Your task to perform on an android device: Open battery settings Image 0: 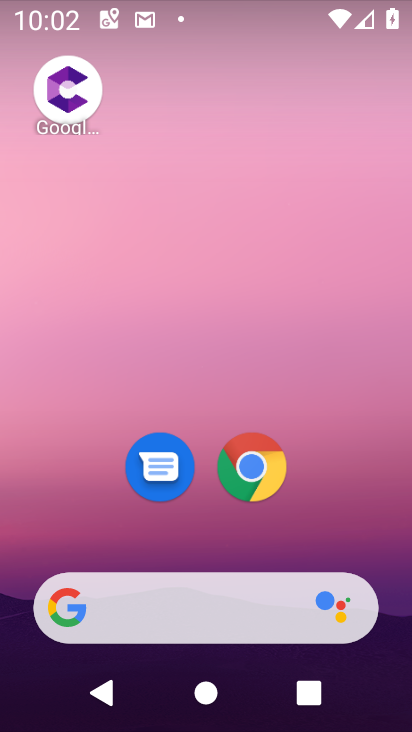
Step 0: drag from (187, 300) to (300, 16)
Your task to perform on an android device: Open battery settings Image 1: 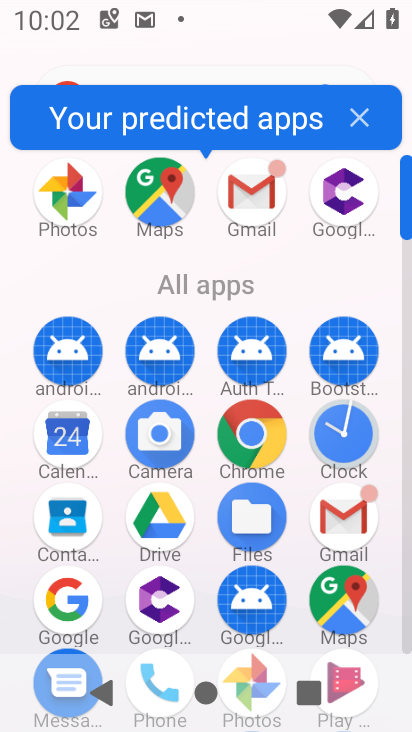
Step 1: drag from (168, 647) to (357, 246)
Your task to perform on an android device: Open battery settings Image 2: 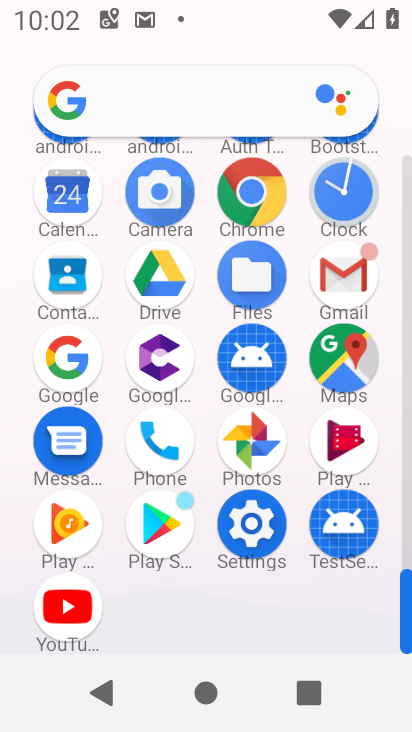
Step 2: click (261, 517)
Your task to perform on an android device: Open battery settings Image 3: 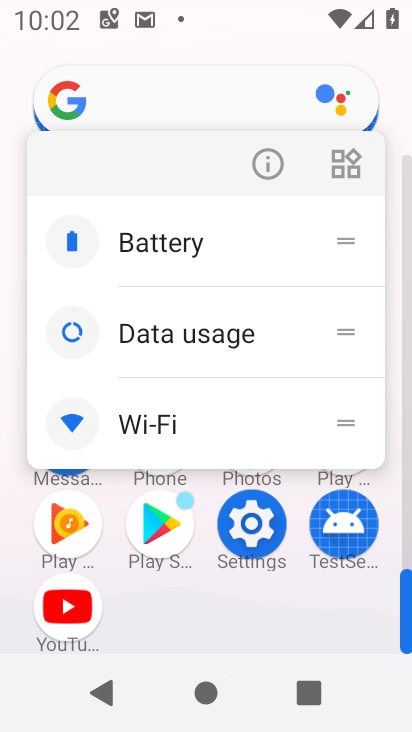
Step 3: click (255, 532)
Your task to perform on an android device: Open battery settings Image 4: 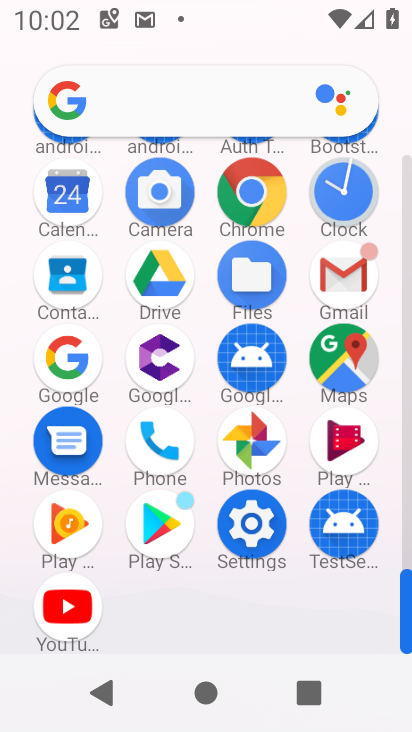
Step 4: click (262, 529)
Your task to perform on an android device: Open battery settings Image 5: 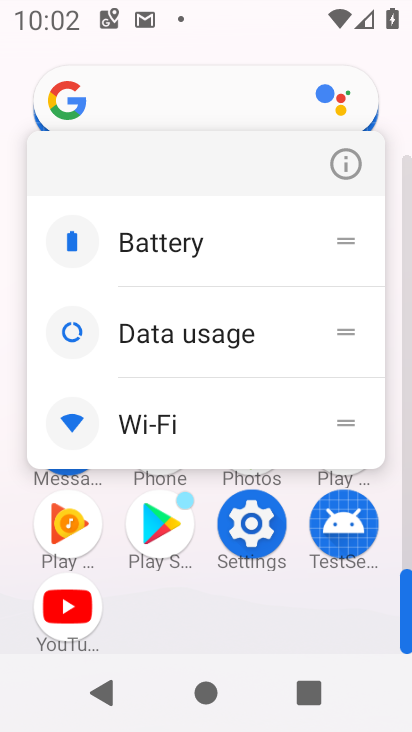
Step 5: click (265, 527)
Your task to perform on an android device: Open battery settings Image 6: 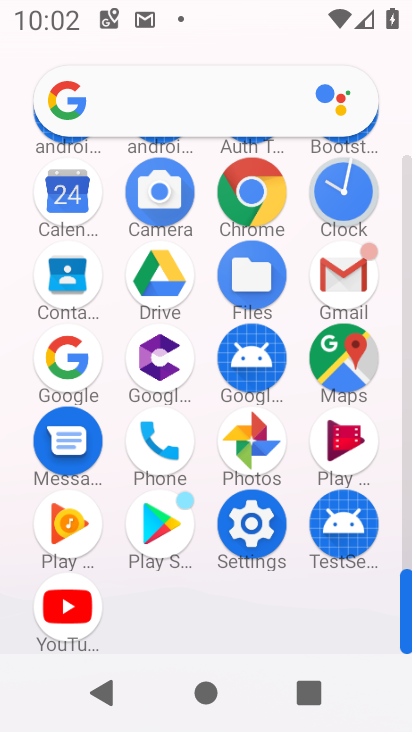
Step 6: click (253, 513)
Your task to perform on an android device: Open battery settings Image 7: 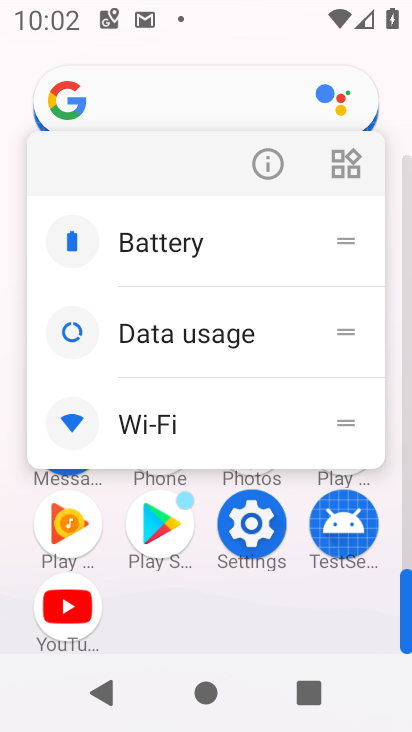
Step 7: click (262, 529)
Your task to perform on an android device: Open battery settings Image 8: 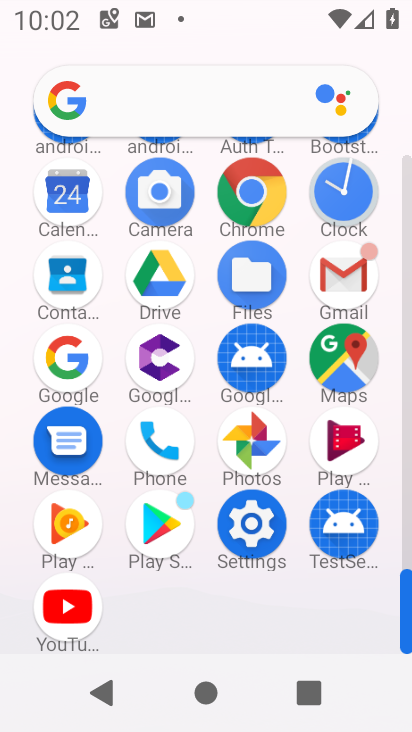
Step 8: click (268, 525)
Your task to perform on an android device: Open battery settings Image 9: 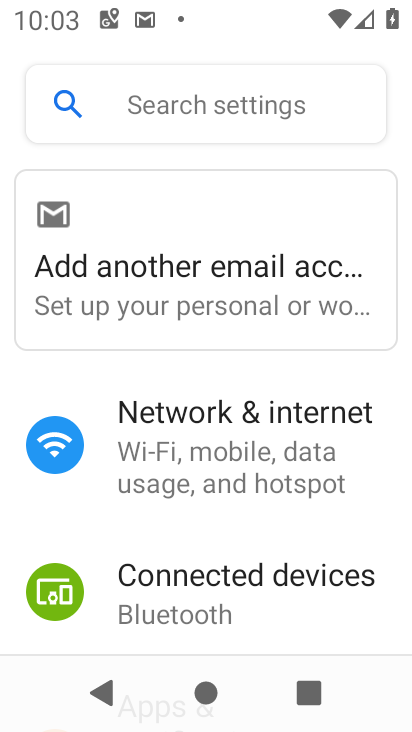
Step 9: drag from (161, 594) to (263, 164)
Your task to perform on an android device: Open battery settings Image 10: 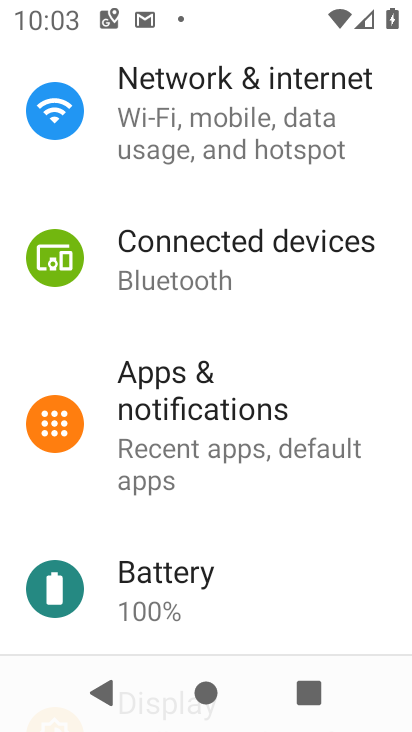
Step 10: click (219, 593)
Your task to perform on an android device: Open battery settings Image 11: 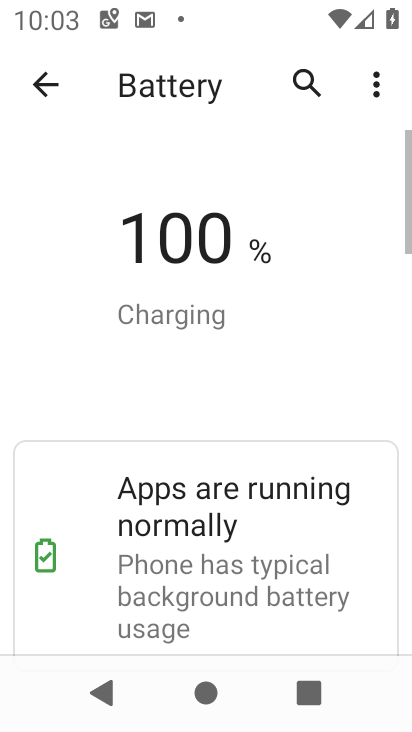
Step 11: task complete